Your task to perform on an android device: Is it going to rain today? Image 0: 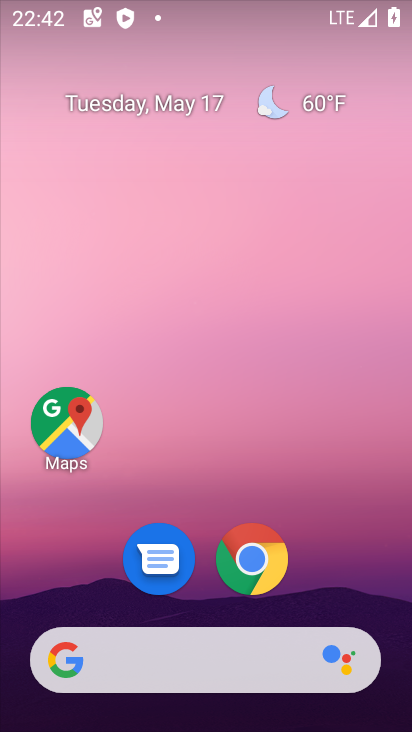
Step 0: click (310, 102)
Your task to perform on an android device: Is it going to rain today? Image 1: 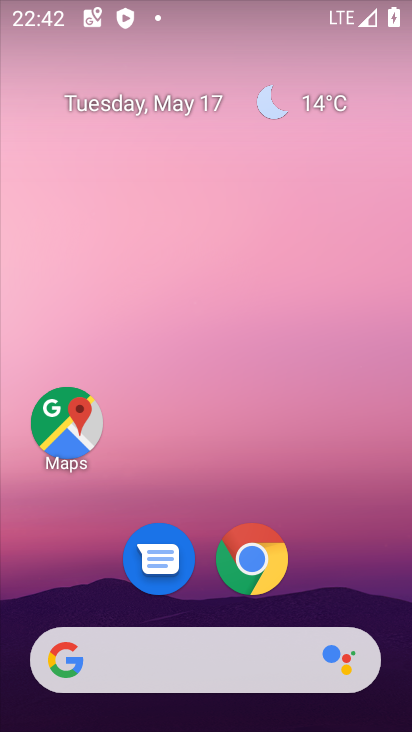
Step 1: click (313, 108)
Your task to perform on an android device: Is it going to rain today? Image 2: 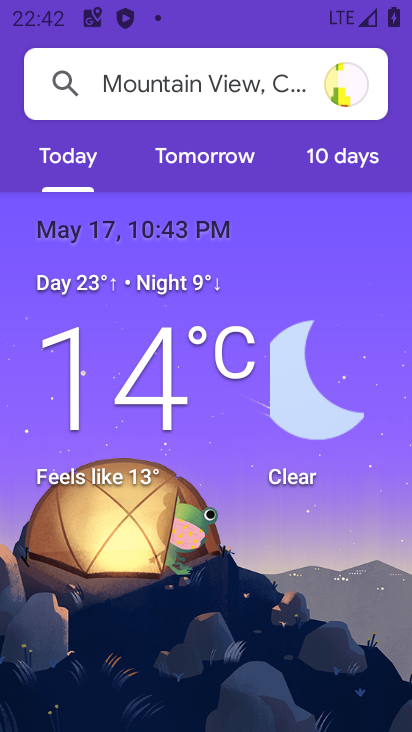
Step 2: task complete